Your task to perform on an android device: turn on the 12-hour format for clock Image 0: 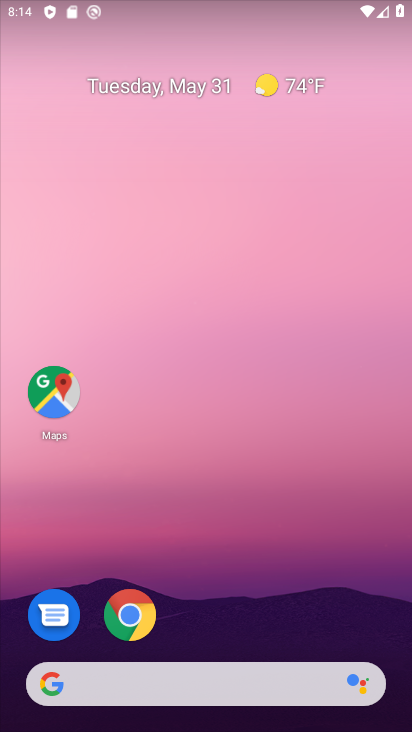
Step 0: drag from (196, 649) to (171, 235)
Your task to perform on an android device: turn on the 12-hour format for clock Image 1: 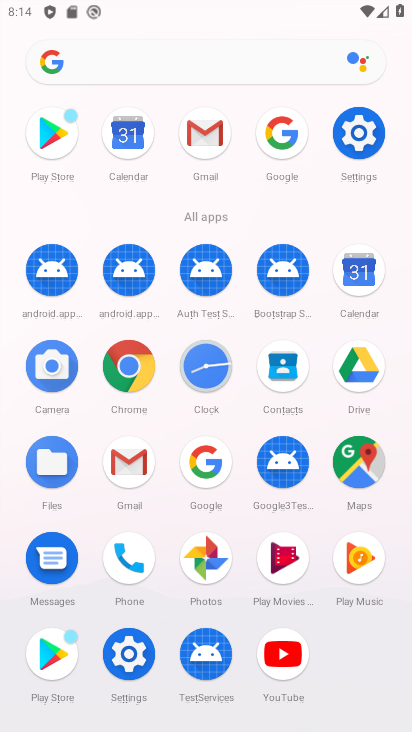
Step 1: click (185, 363)
Your task to perform on an android device: turn on the 12-hour format for clock Image 2: 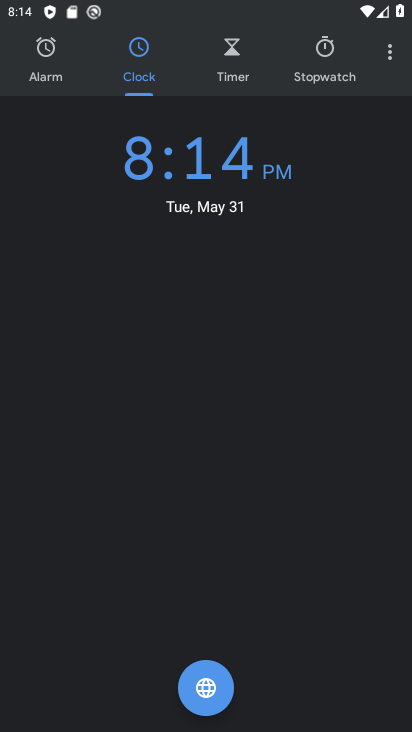
Step 2: click (391, 62)
Your task to perform on an android device: turn on the 12-hour format for clock Image 3: 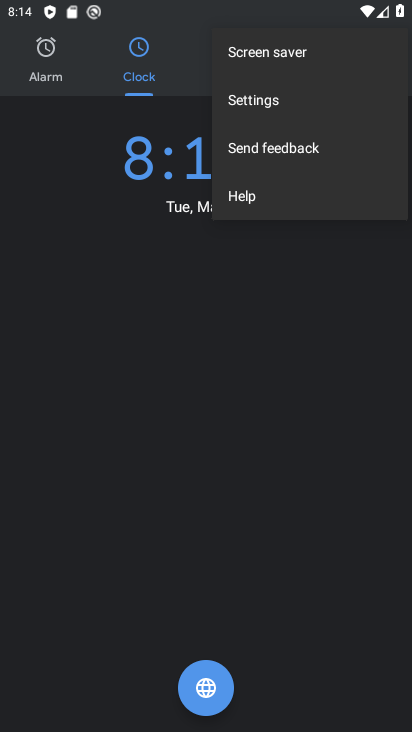
Step 3: click (259, 102)
Your task to perform on an android device: turn on the 12-hour format for clock Image 4: 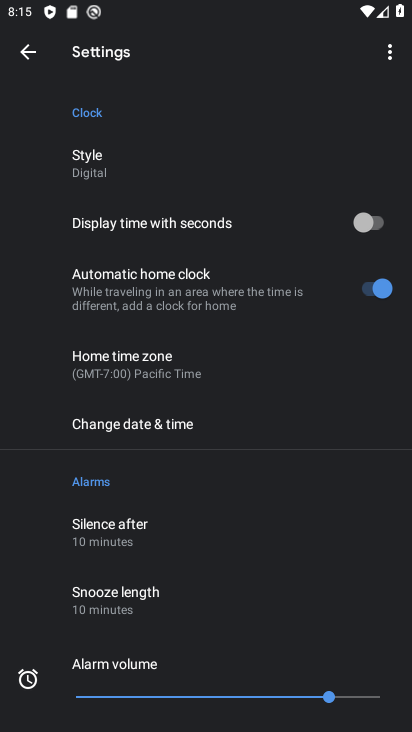
Step 4: click (236, 420)
Your task to perform on an android device: turn on the 12-hour format for clock Image 5: 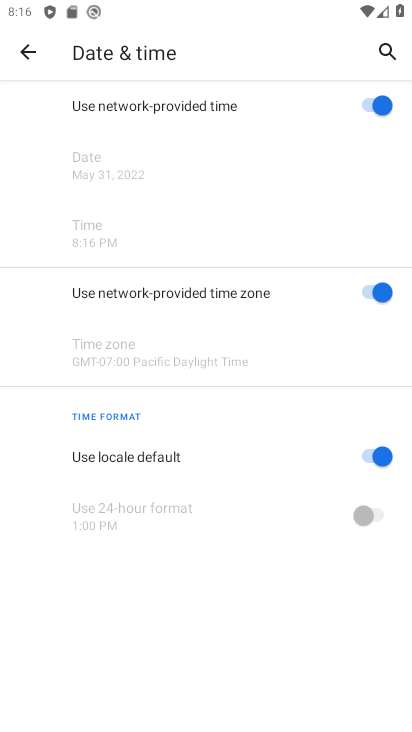
Step 5: task complete